Your task to perform on an android device: Open calendar and show me the first week of next month Image 0: 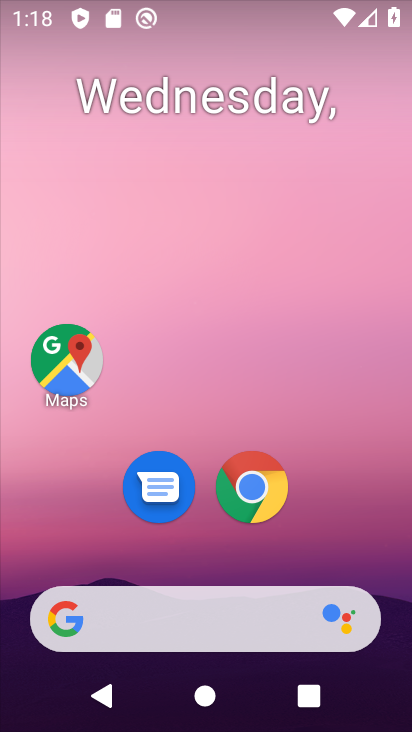
Step 0: drag from (321, 473) to (268, 74)
Your task to perform on an android device: Open calendar and show me the first week of next month Image 1: 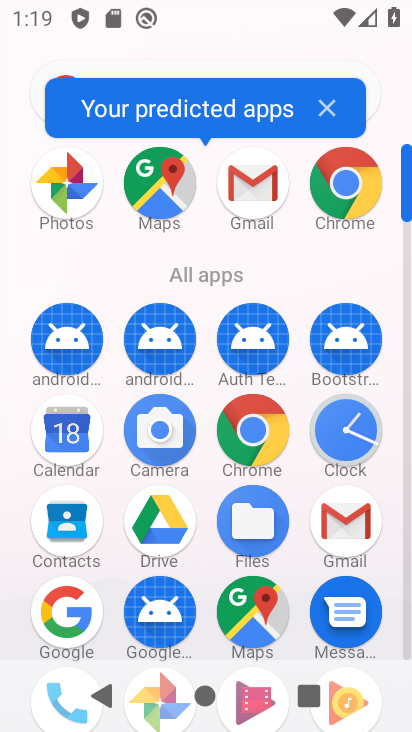
Step 1: click (70, 421)
Your task to perform on an android device: Open calendar and show me the first week of next month Image 2: 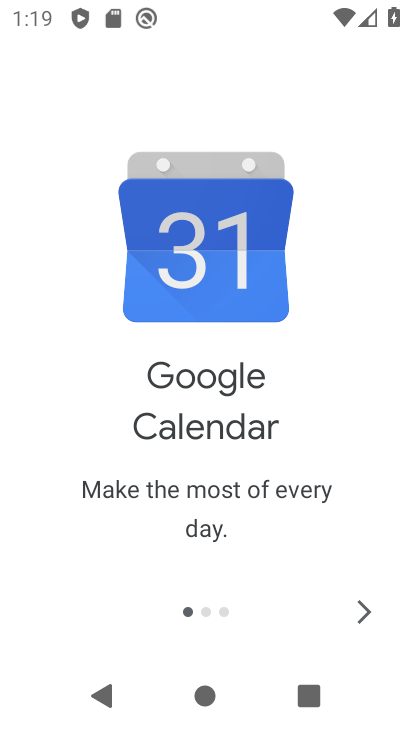
Step 2: click (359, 603)
Your task to perform on an android device: Open calendar and show me the first week of next month Image 3: 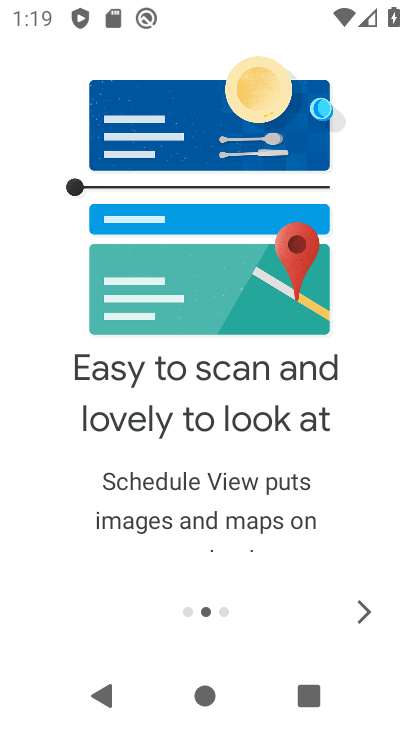
Step 3: click (359, 609)
Your task to perform on an android device: Open calendar and show me the first week of next month Image 4: 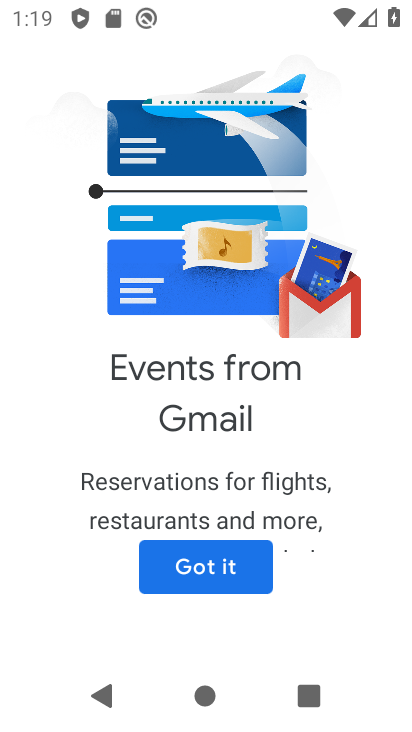
Step 4: click (233, 569)
Your task to perform on an android device: Open calendar and show me the first week of next month Image 5: 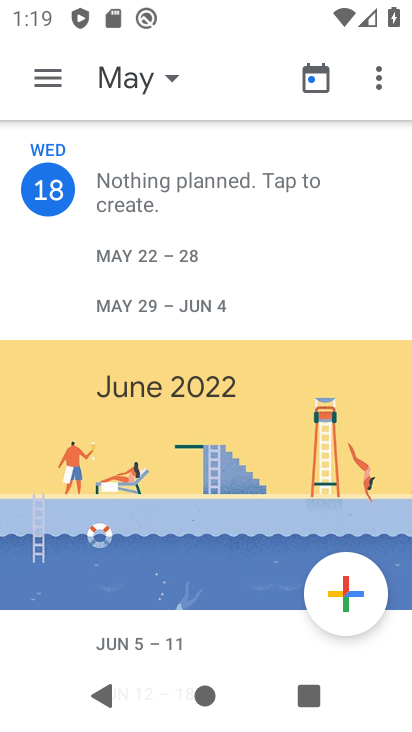
Step 5: click (41, 76)
Your task to perform on an android device: Open calendar and show me the first week of next month Image 6: 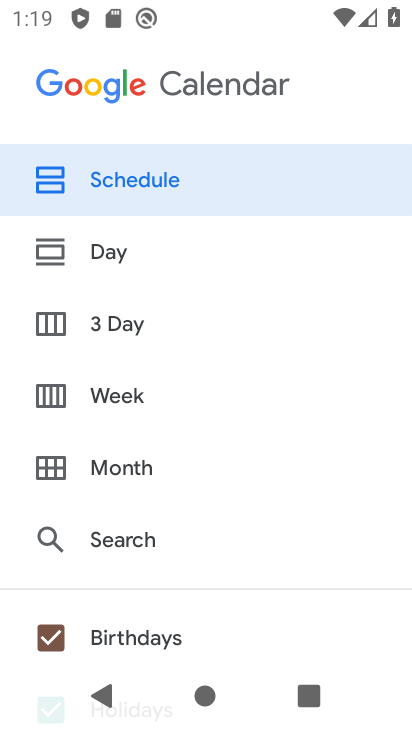
Step 6: click (129, 391)
Your task to perform on an android device: Open calendar and show me the first week of next month Image 7: 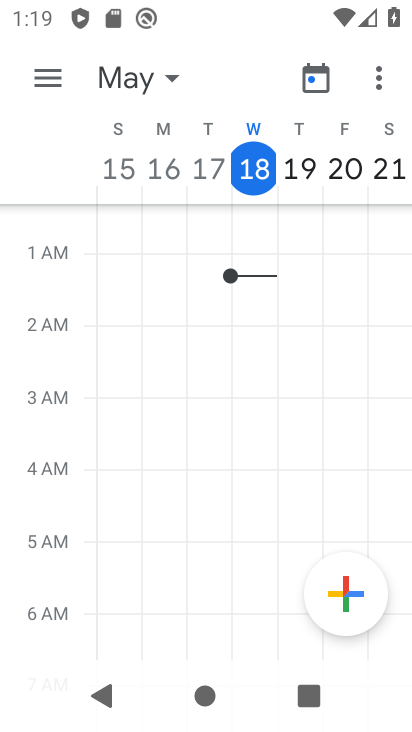
Step 7: click (161, 71)
Your task to perform on an android device: Open calendar and show me the first week of next month Image 8: 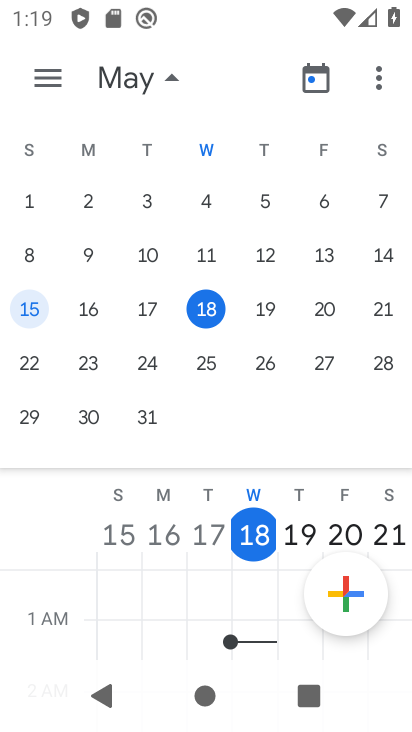
Step 8: task complete